Your task to perform on an android device: empty trash in the gmail app Image 0: 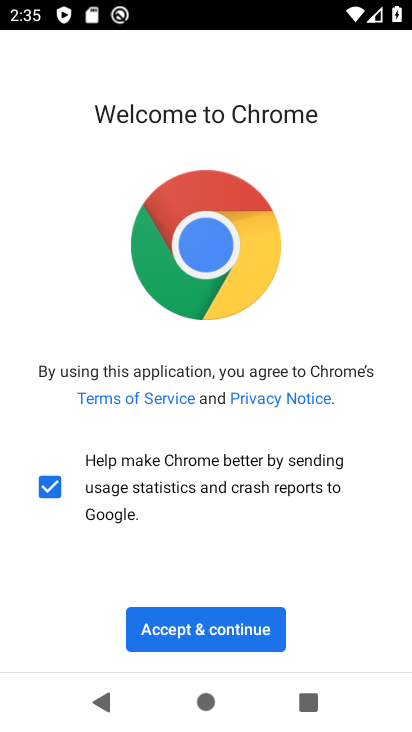
Step 0: press home button
Your task to perform on an android device: empty trash in the gmail app Image 1: 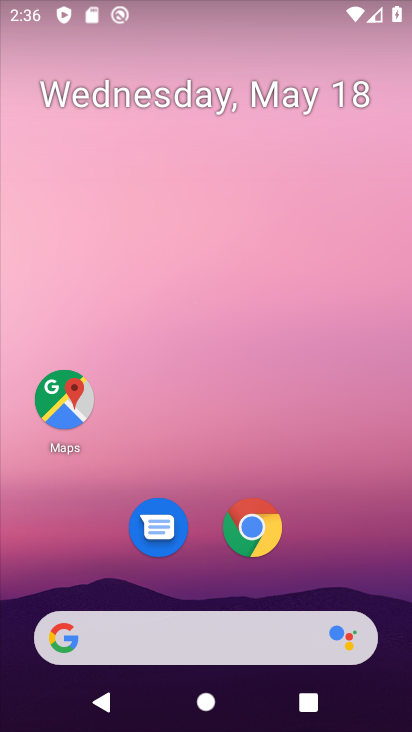
Step 1: drag from (173, 617) to (151, 25)
Your task to perform on an android device: empty trash in the gmail app Image 2: 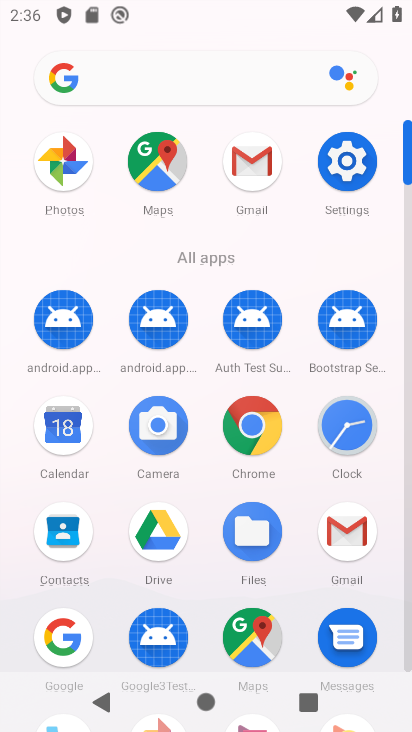
Step 2: click (350, 540)
Your task to perform on an android device: empty trash in the gmail app Image 3: 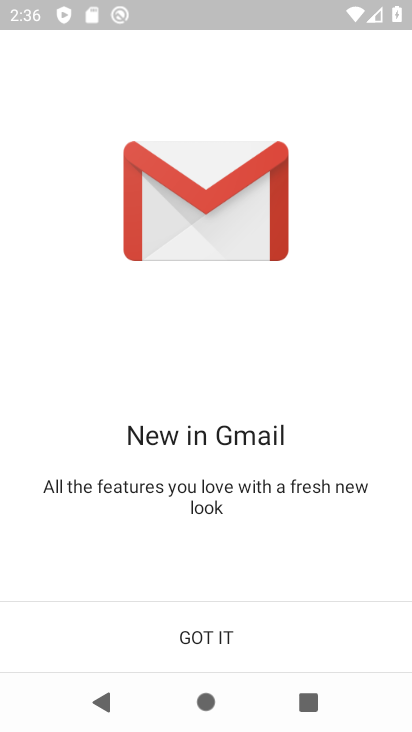
Step 3: click (287, 634)
Your task to perform on an android device: empty trash in the gmail app Image 4: 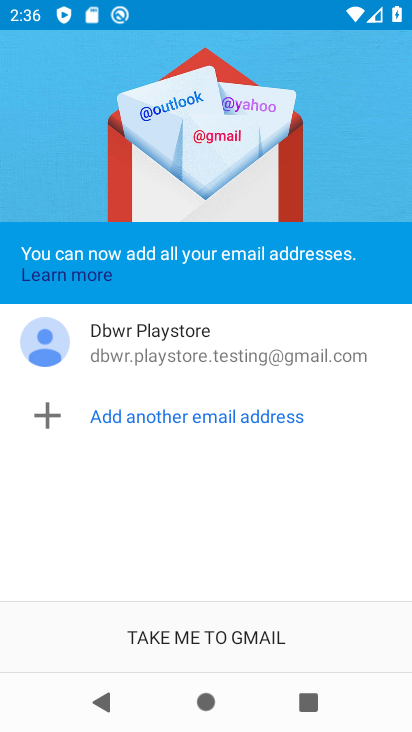
Step 4: click (238, 640)
Your task to perform on an android device: empty trash in the gmail app Image 5: 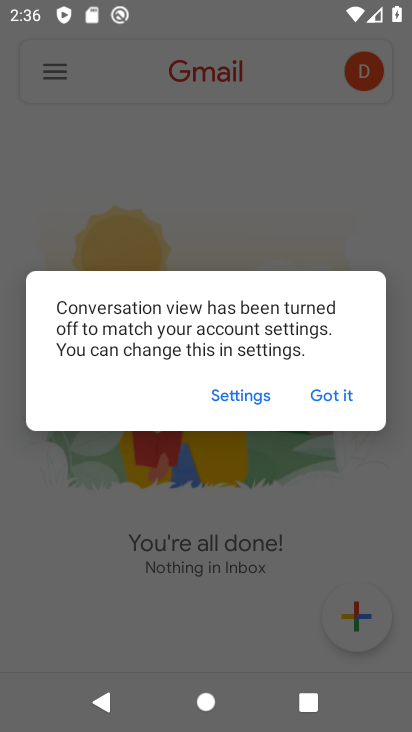
Step 5: click (334, 383)
Your task to perform on an android device: empty trash in the gmail app Image 6: 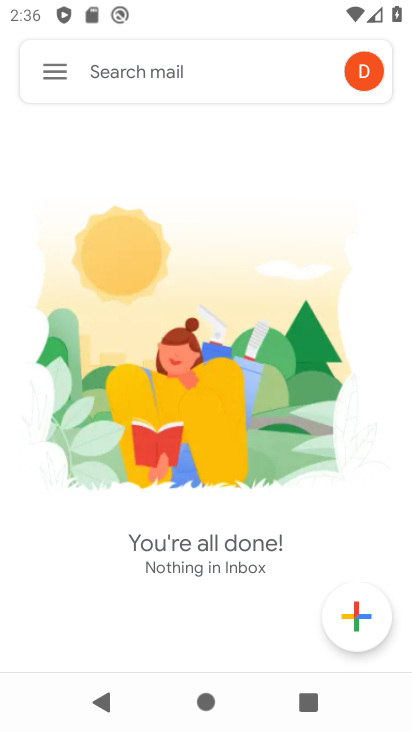
Step 6: click (52, 63)
Your task to perform on an android device: empty trash in the gmail app Image 7: 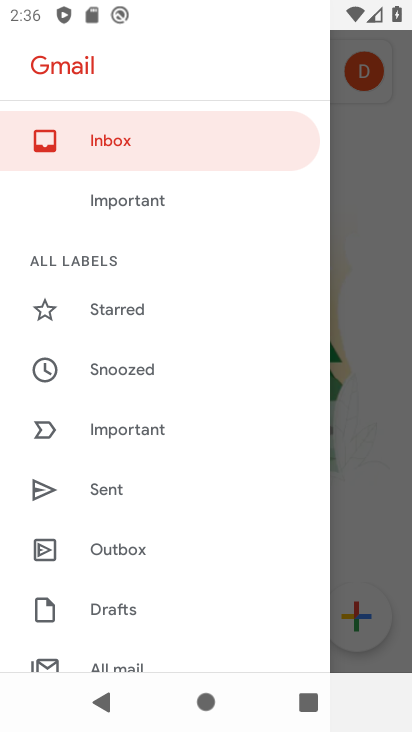
Step 7: drag from (131, 542) to (108, 209)
Your task to perform on an android device: empty trash in the gmail app Image 8: 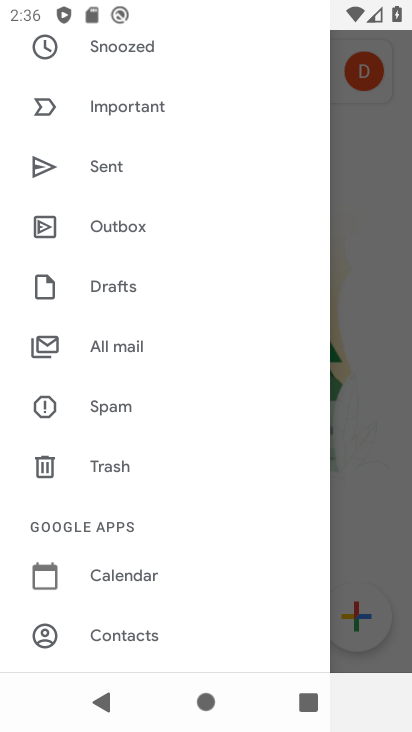
Step 8: click (108, 472)
Your task to perform on an android device: empty trash in the gmail app Image 9: 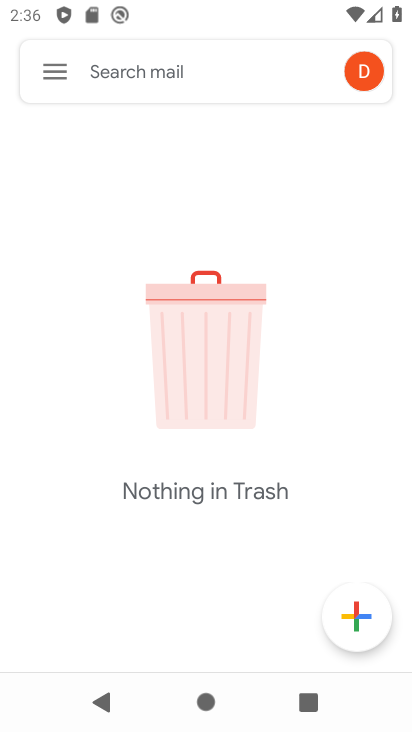
Step 9: task complete